Your task to perform on an android device: Open internet settings Image 0: 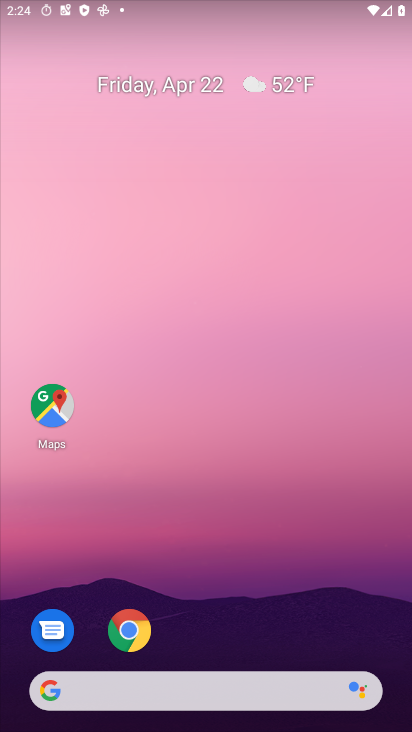
Step 0: click (407, 162)
Your task to perform on an android device: Open internet settings Image 1: 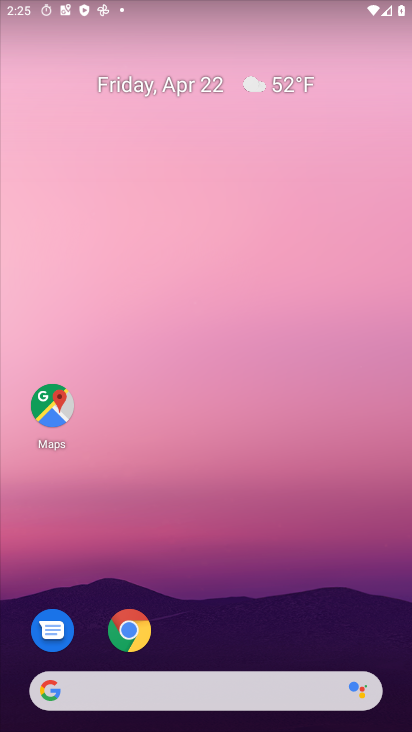
Step 1: drag from (351, 632) to (369, 77)
Your task to perform on an android device: Open internet settings Image 2: 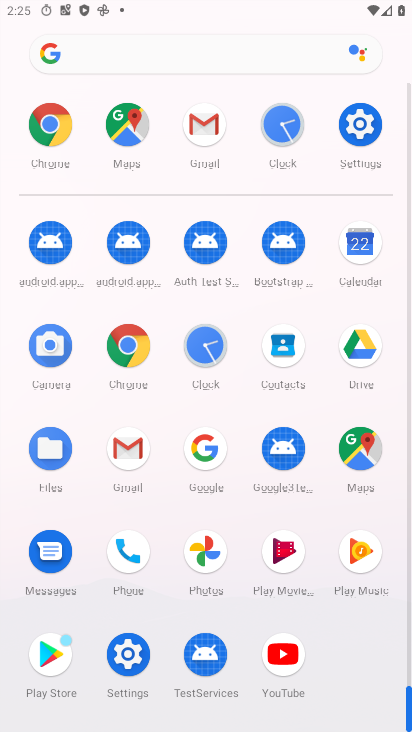
Step 2: click (350, 108)
Your task to perform on an android device: Open internet settings Image 3: 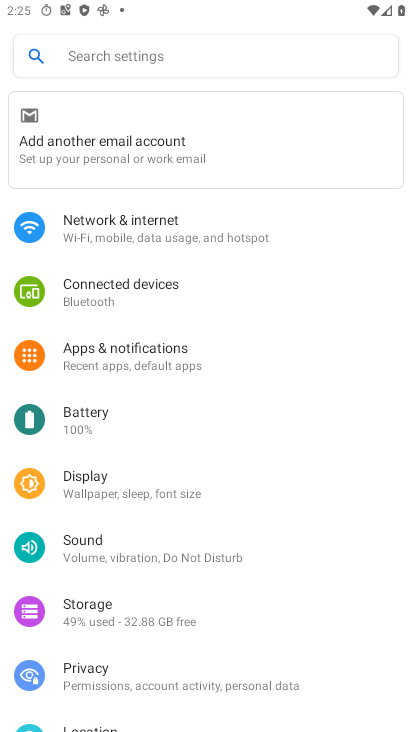
Step 3: click (125, 221)
Your task to perform on an android device: Open internet settings Image 4: 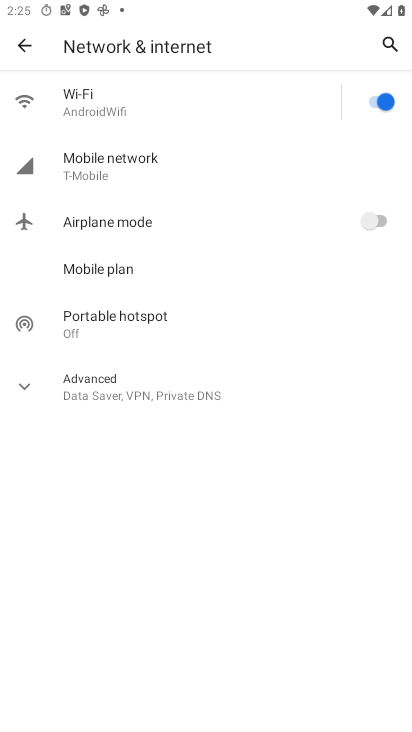
Step 4: click (95, 157)
Your task to perform on an android device: Open internet settings Image 5: 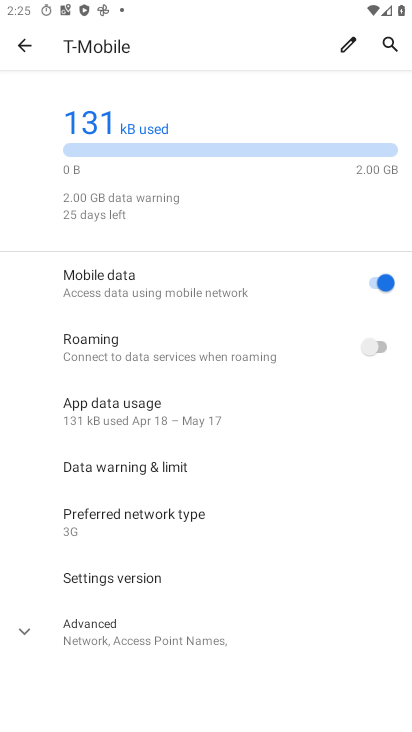
Step 5: task complete